Your task to perform on an android device: snooze an email in the gmail app Image 0: 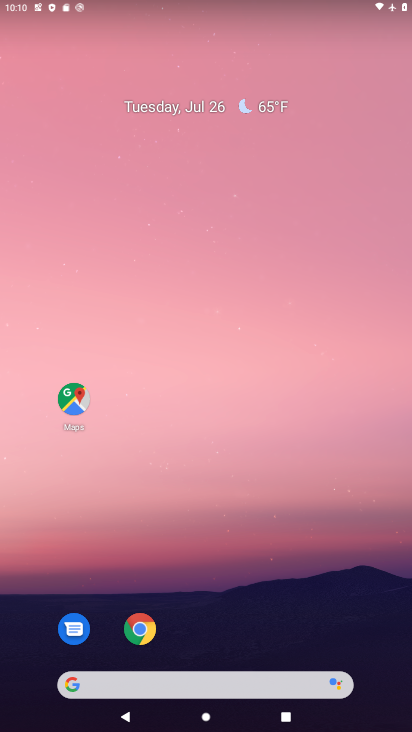
Step 0: drag from (273, 590) to (138, 166)
Your task to perform on an android device: snooze an email in the gmail app Image 1: 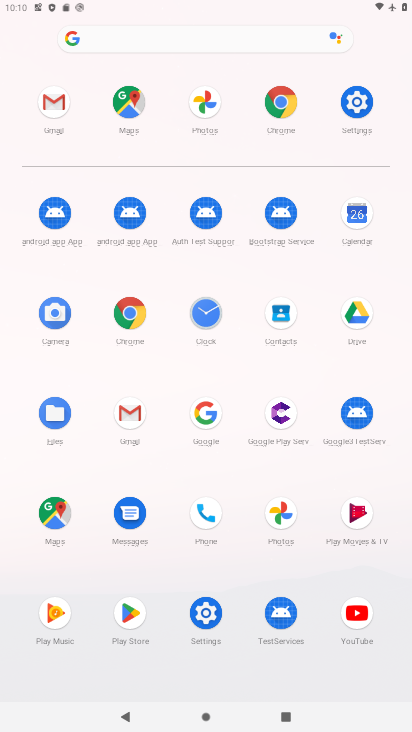
Step 1: click (126, 415)
Your task to perform on an android device: snooze an email in the gmail app Image 2: 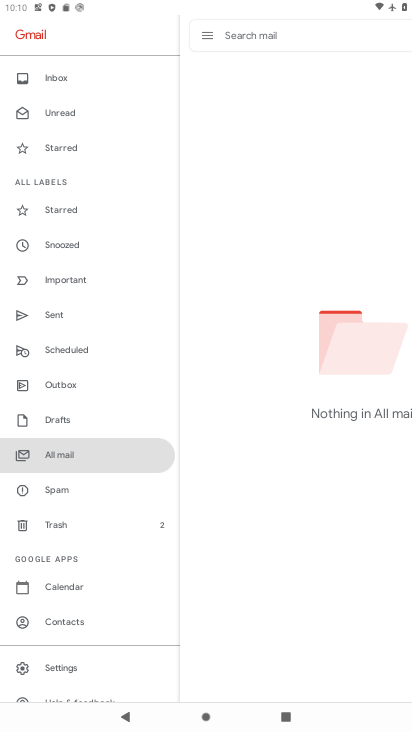
Step 2: click (60, 244)
Your task to perform on an android device: snooze an email in the gmail app Image 3: 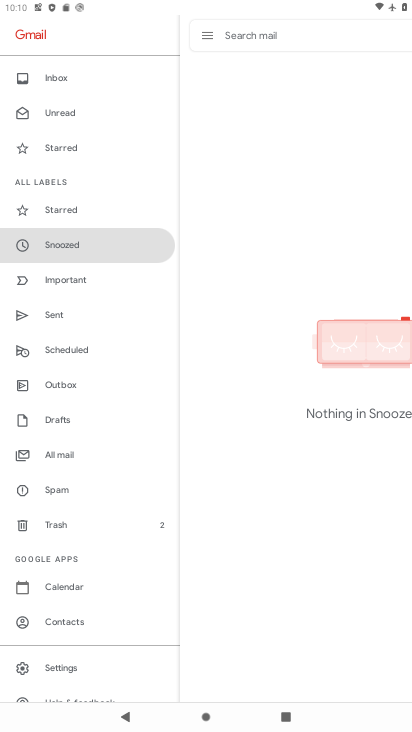
Step 3: click (64, 452)
Your task to perform on an android device: snooze an email in the gmail app Image 4: 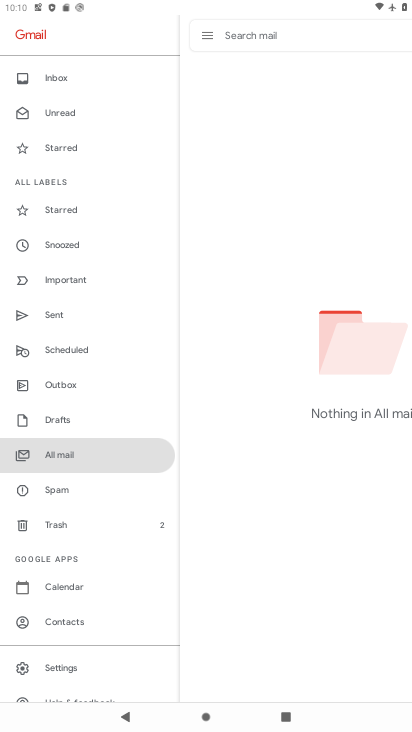
Step 4: task complete